Your task to perform on an android device: Go to settings Image 0: 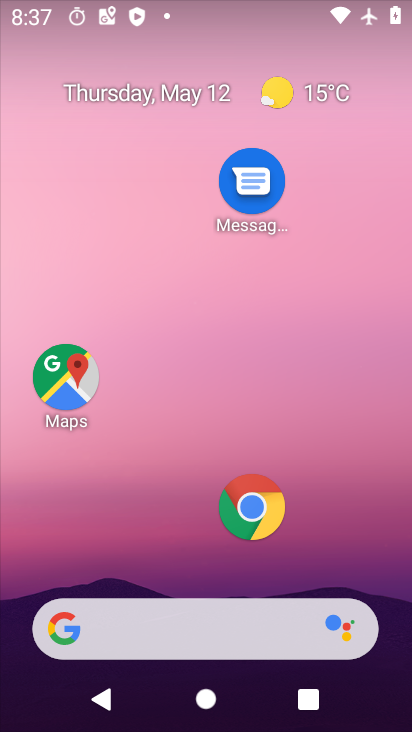
Step 0: drag from (171, 542) to (155, 5)
Your task to perform on an android device: Go to settings Image 1: 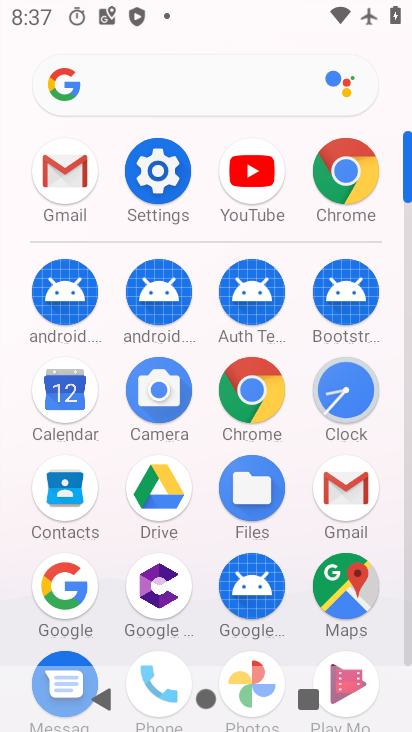
Step 1: click (160, 168)
Your task to perform on an android device: Go to settings Image 2: 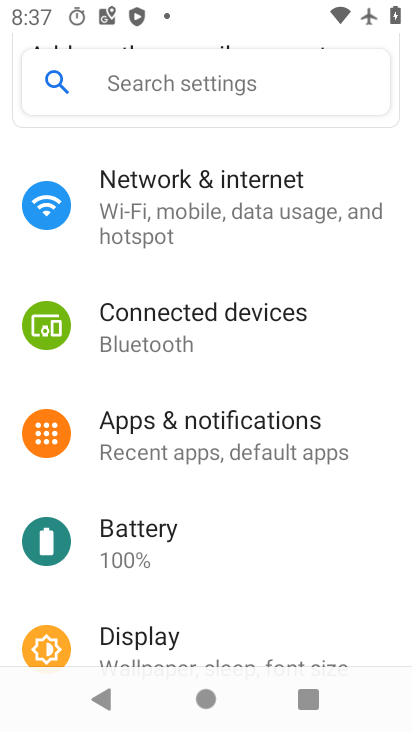
Step 2: task complete